Your task to perform on an android device: visit the assistant section in the google photos Image 0: 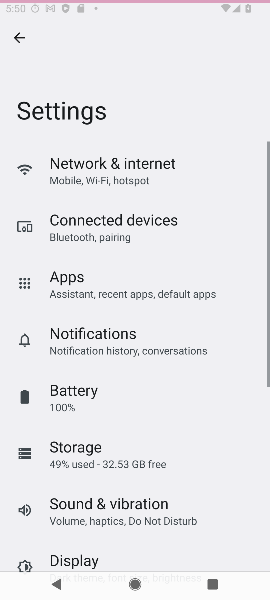
Step 0: press home button
Your task to perform on an android device: visit the assistant section in the google photos Image 1: 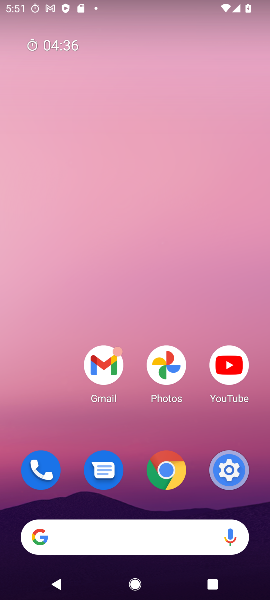
Step 1: press home button
Your task to perform on an android device: visit the assistant section in the google photos Image 2: 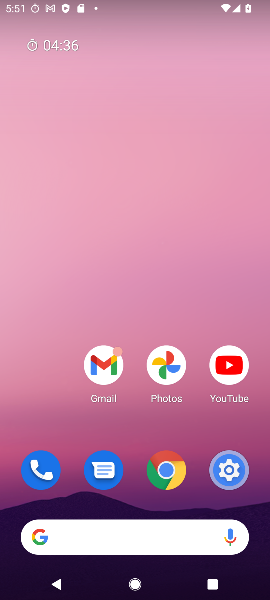
Step 2: press home button
Your task to perform on an android device: visit the assistant section in the google photos Image 3: 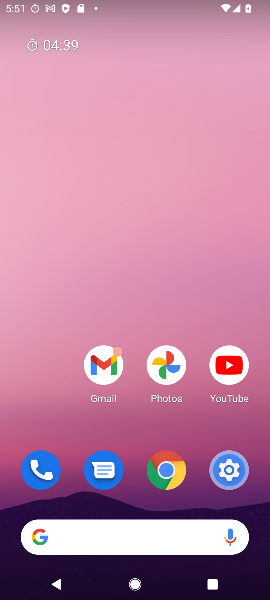
Step 3: click (166, 362)
Your task to perform on an android device: visit the assistant section in the google photos Image 4: 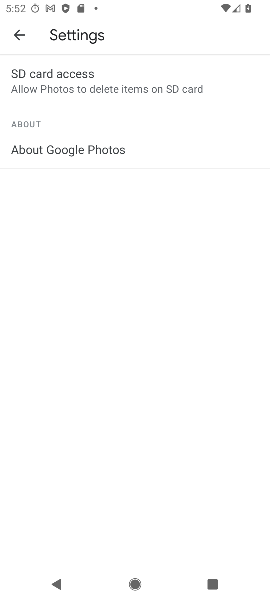
Step 4: click (27, 29)
Your task to perform on an android device: visit the assistant section in the google photos Image 5: 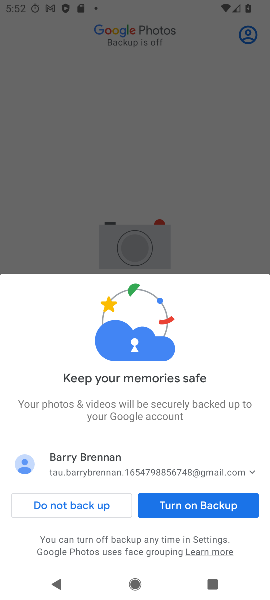
Step 5: task complete